Your task to perform on an android device: turn on data saver in the chrome app Image 0: 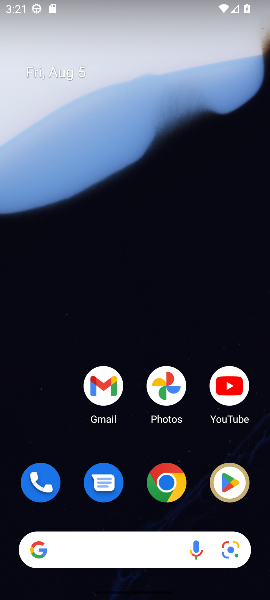
Step 0: press home button
Your task to perform on an android device: turn on data saver in the chrome app Image 1: 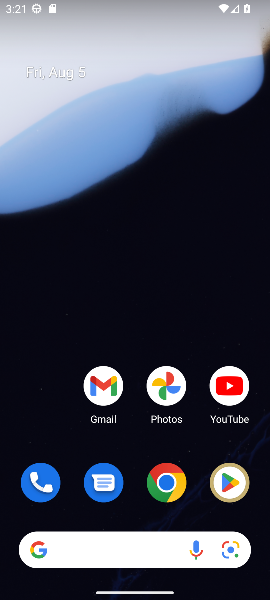
Step 1: drag from (138, 508) to (156, 80)
Your task to perform on an android device: turn on data saver in the chrome app Image 2: 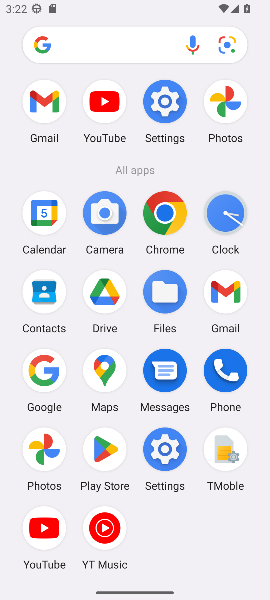
Step 2: click (160, 207)
Your task to perform on an android device: turn on data saver in the chrome app Image 3: 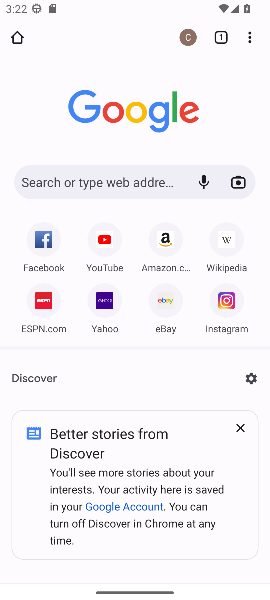
Step 3: click (247, 36)
Your task to perform on an android device: turn on data saver in the chrome app Image 4: 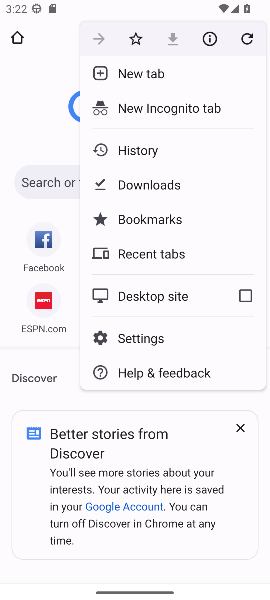
Step 4: click (137, 338)
Your task to perform on an android device: turn on data saver in the chrome app Image 5: 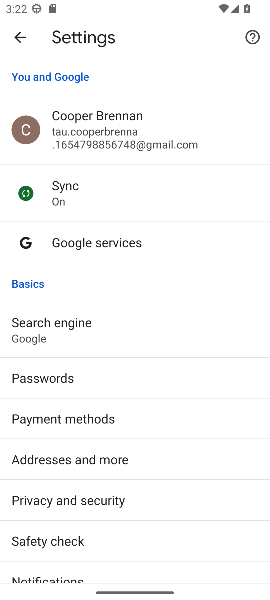
Step 5: task complete